Your task to perform on an android device: Go to Maps Image 0: 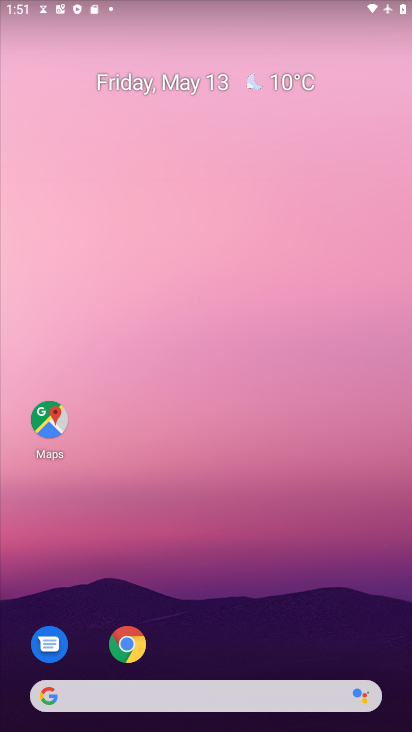
Step 0: drag from (203, 720) to (207, 175)
Your task to perform on an android device: Go to Maps Image 1: 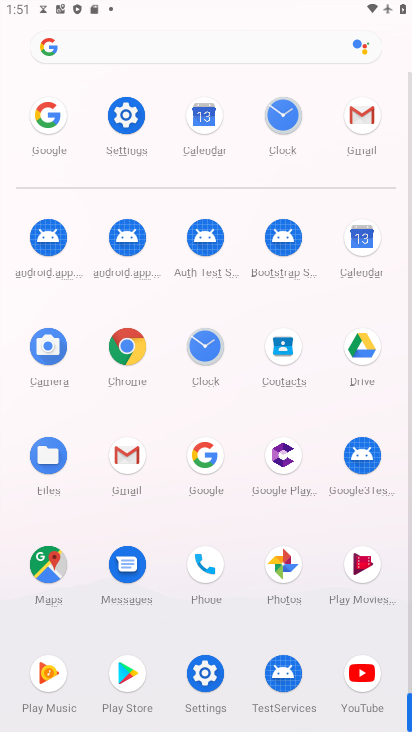
Step 1: click (43, 562)
Your task to perform on an android device: Go to Maps Image 2: 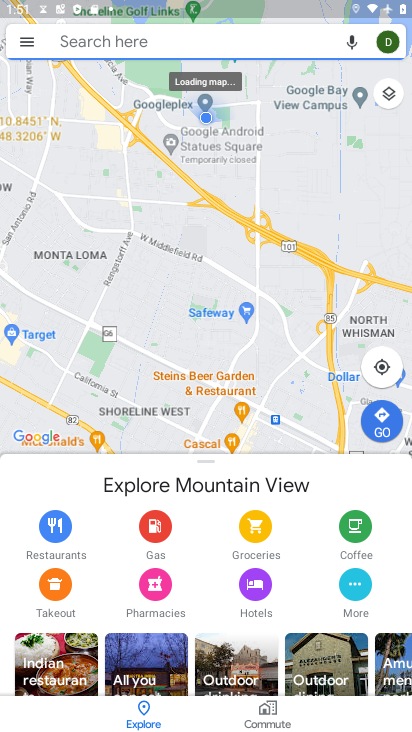
Step 2: task complete